Your task to perform on an android device: toggle improve location accuracy Image 0: 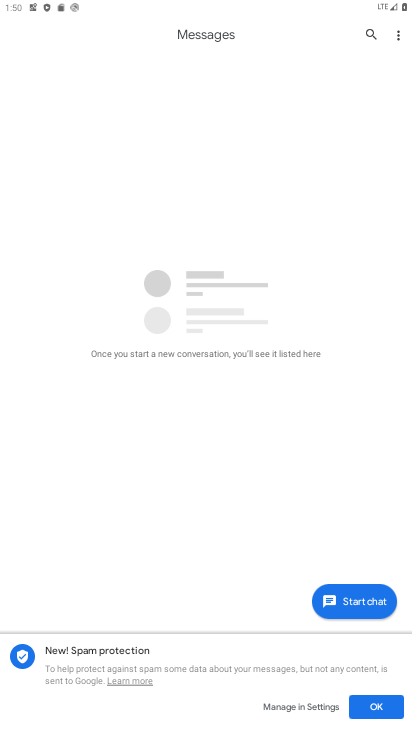
Step 0: press home button
Your task to perform on an android device: toggle improve location accuracy Image 1: 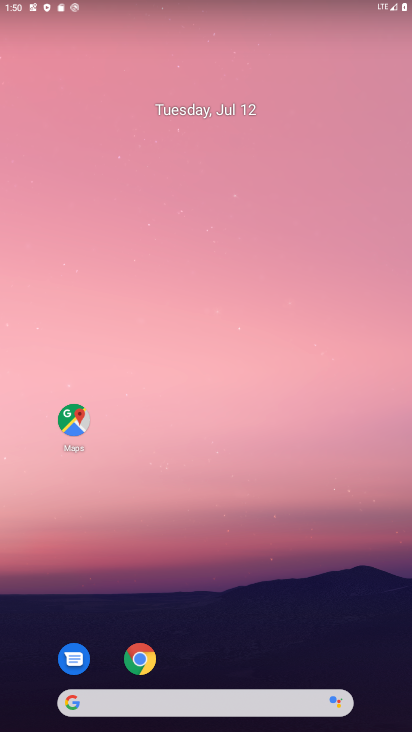
Step 1: drag from (207, 664) to (202, 106)
Your task to perform on an android device: toggle improve location accuracy Image 2: 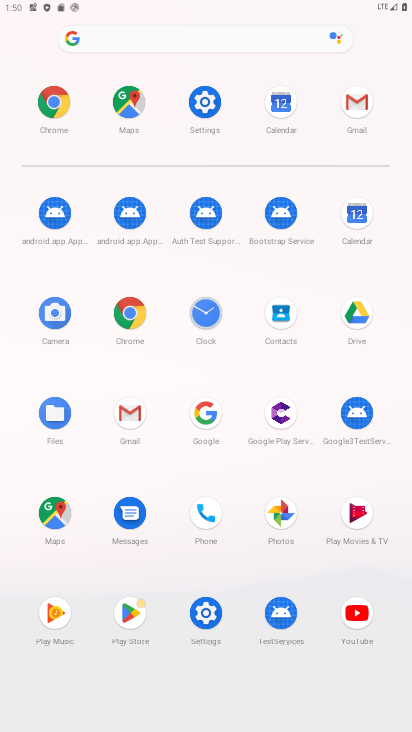
Step 2: click (200, 105)
Your task to perform on an android device: toggle improve location accuracy Image 3: 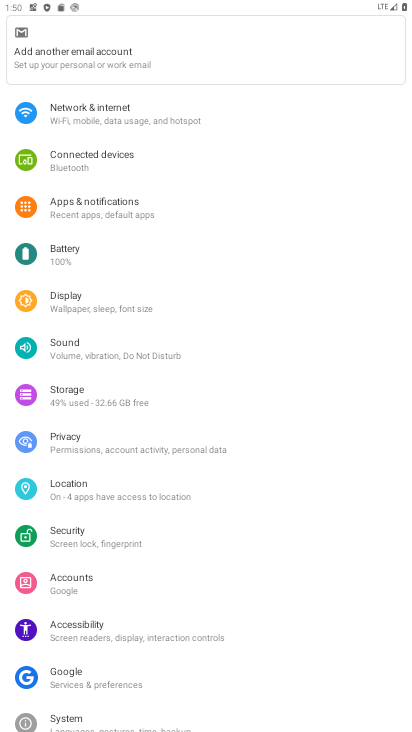
Step 3: click (73, 481)
Your task to perform on an android device: toggle improve location accuracy Image 4: 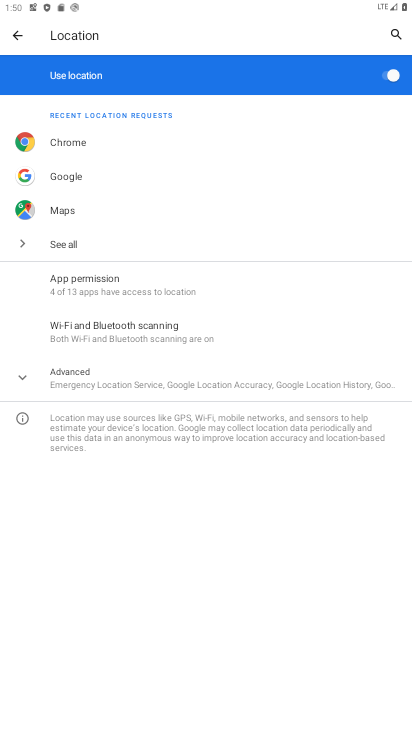
Step 4: click (76, 376)
Your task to perform on an android device: toggle improve location accuracy Image 5: 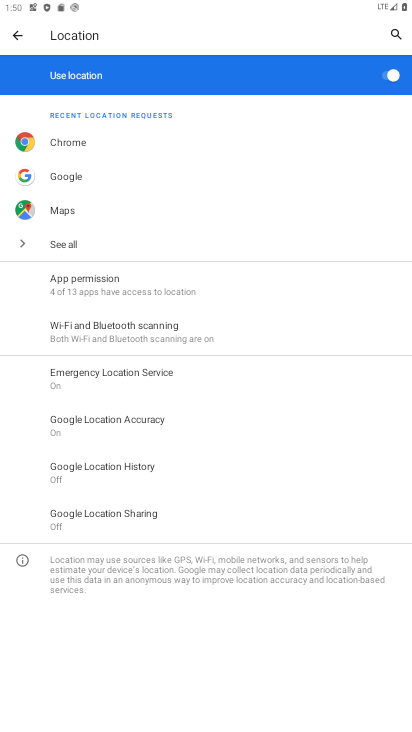
Step 5: click (94, 421)
Your task to perform on an android device: toggle improve location accuracy Image 6: 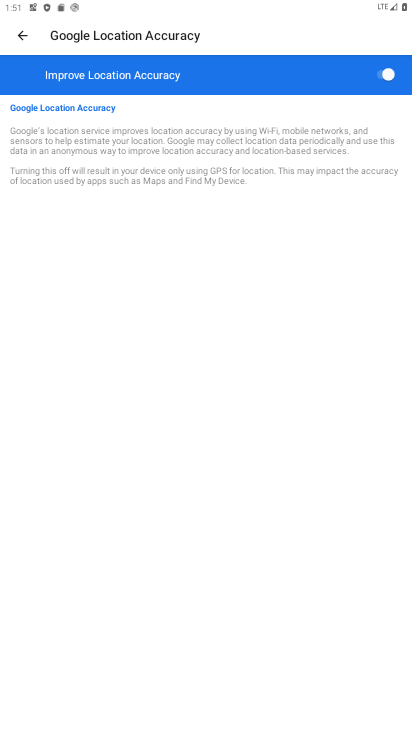
Step 6: click (385, 71)
Your task to perform on an android device: toggle improve location accuracy Image 7: 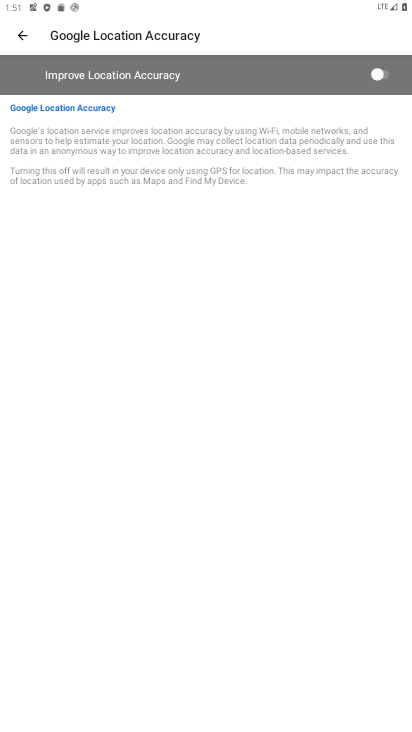
Step 7: task complete